Your task to perform on an android device: Show me the alarms in the clock app Image 0: 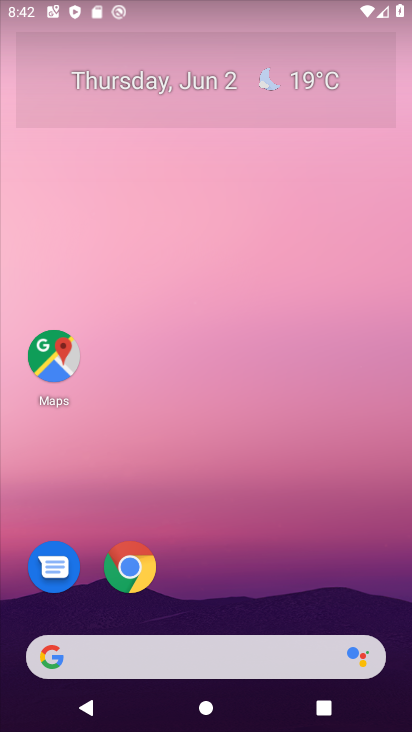
Step 0: drag from (227, 617) to (252, 134)
Your task to perform on an android device: Show me the alarms in the clock app Image 1: 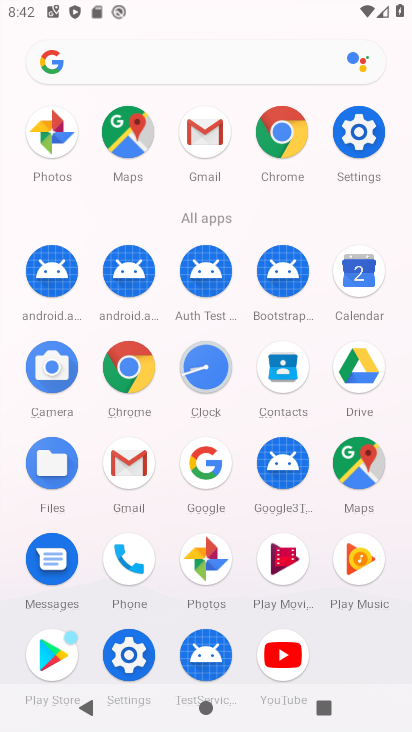
Step 1: click (209, 389)
Your task to perform on an android device: Show me the alarms in the clock app Image 2: 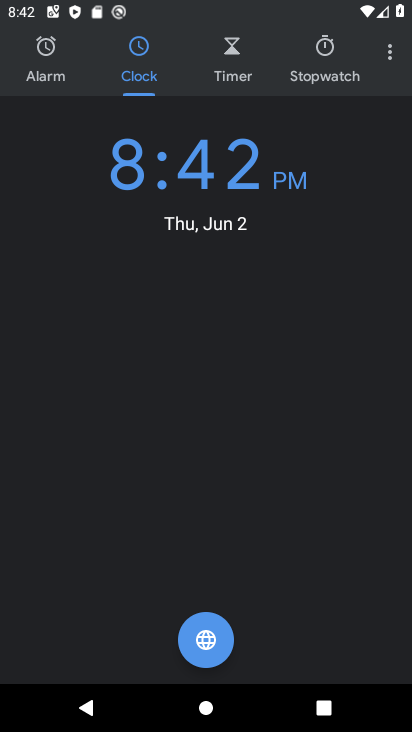
Step 2: click (67, 62)
Your task to perform on an android device: Show me the alarms in the clock app Image 3: 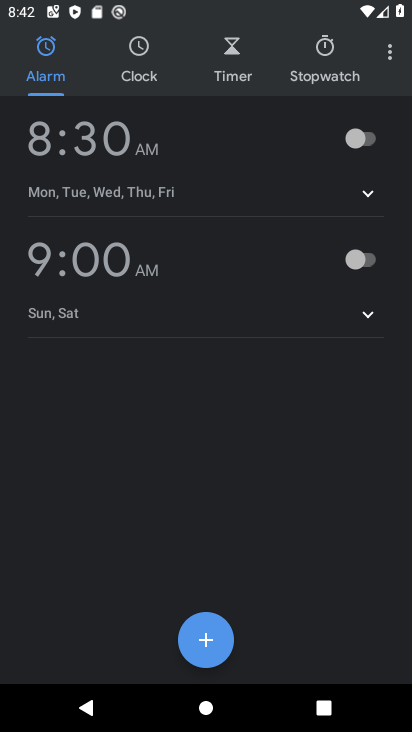
Step 3: task complete